Your task to perform on an android device: turn off notifications in google photos Image 0: 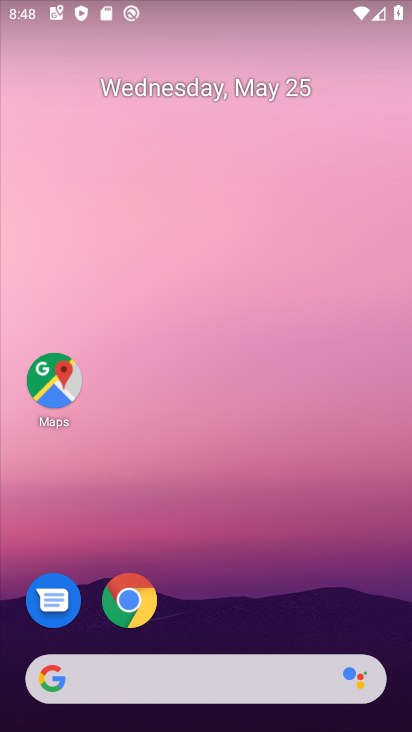
Step 0: drag from (282, 598) to (192, 32)
Your task to perform on an android device: turn off notifications in google photos Image 1: 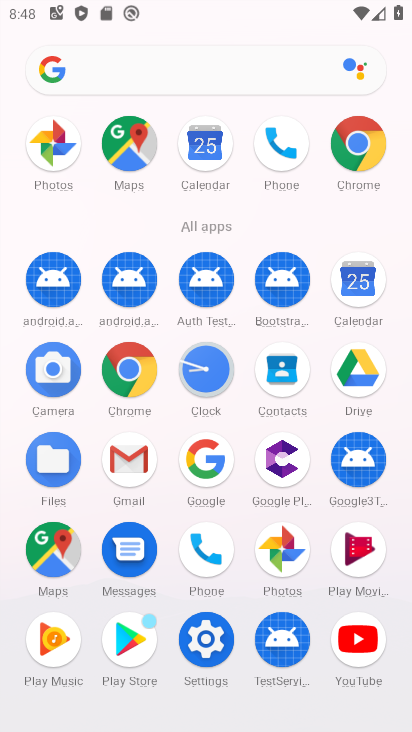
Step 1: drag from (6, 532) to (22, 262)
Your task to perform on an android device: turn off notifications in google photos Image 2: 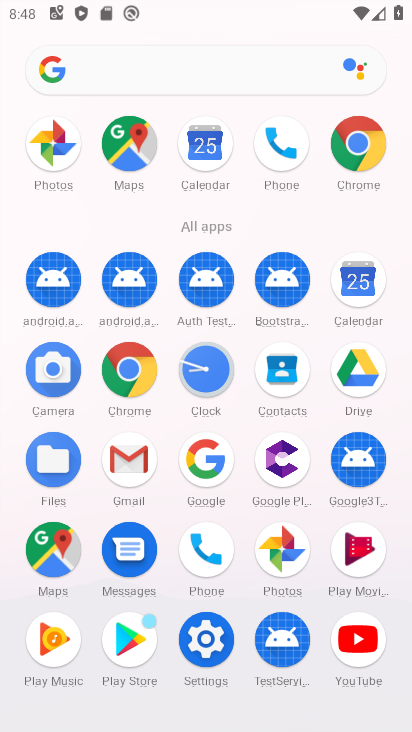
Step 2: click (282, 548)
Your task to perform on an android device: turn off notifications in google photos Image 3: 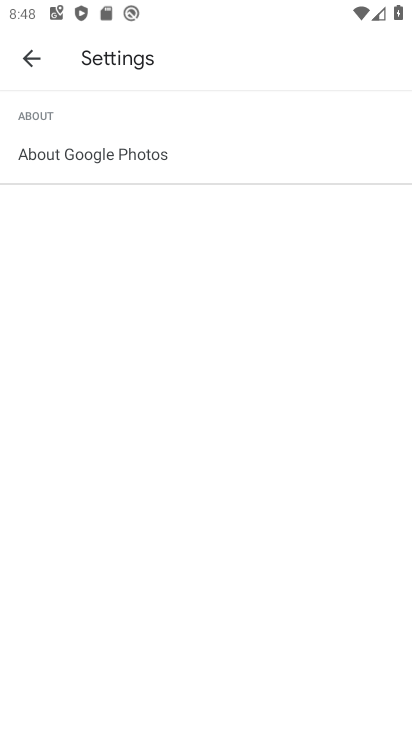
Step 3: click (20, 57)
Your task to perform on an android device: turn off notifications in google photos Image 4: 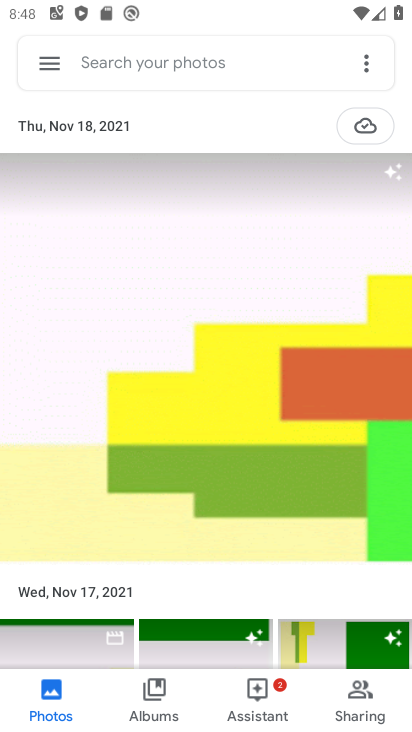
Step 4: click (365, 61)
Your task to perform on an android device: turn off notifications in google photos Image 5: 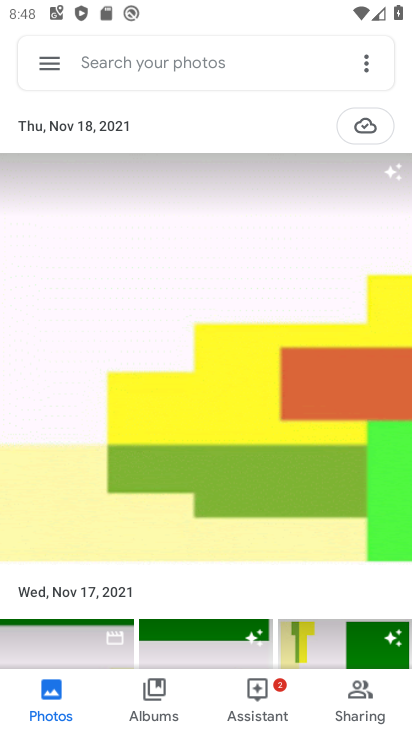
Step 5: click (365, 61)
Your task to perform on an android device: turn off notifications in google photos Image 6: 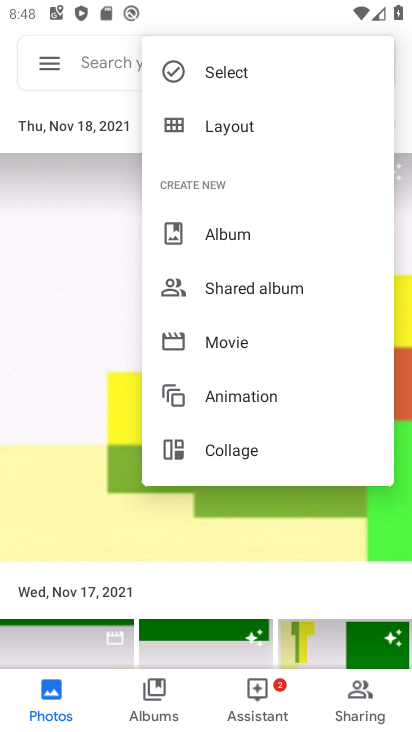
Step 6: click (40, 55)
Your task to perform on an android device: turn off notifications in google photos Image 7: 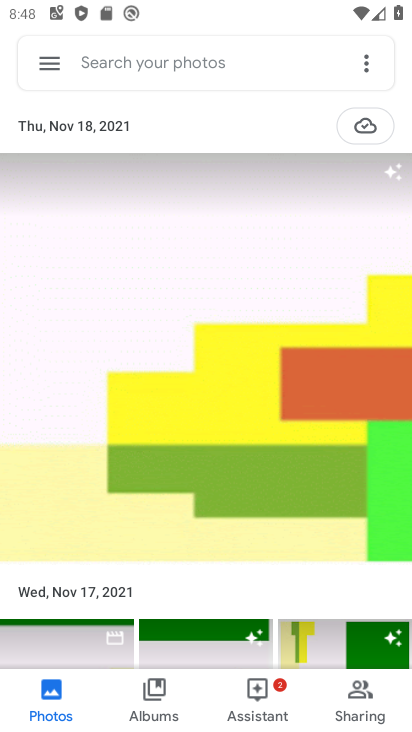
Step 7: click (57, 68)
Your task to perform on an android device: turn off notifications in google photos Image 8: 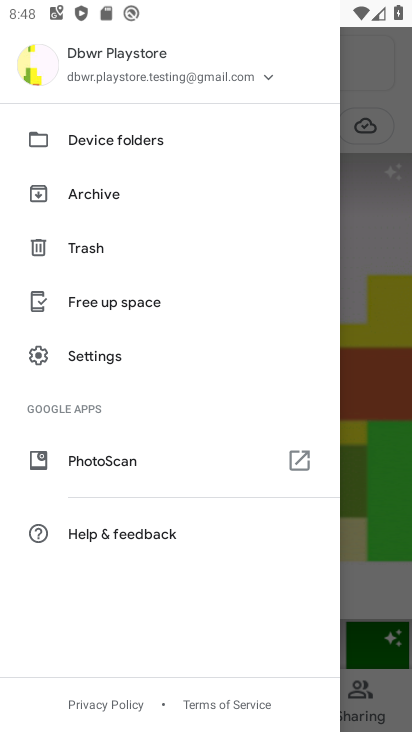
Step 8: click (81, 350)
Your task to perform on an android device: turn off notifications in google photos Image 9: 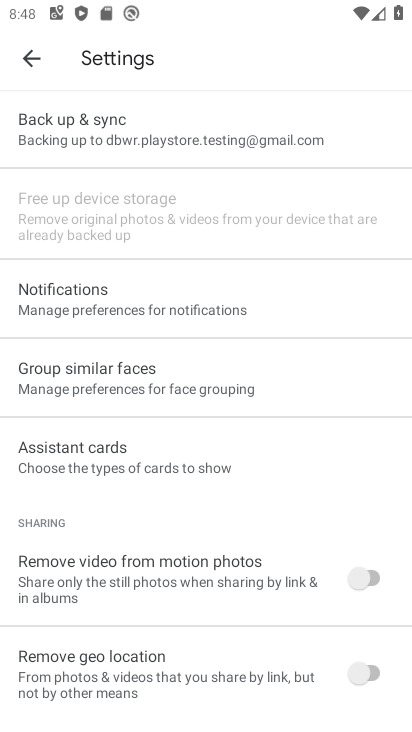
Step 9: click (103, 311)
Your task to perform on an android device: turn off notifications in google photos Image 10: 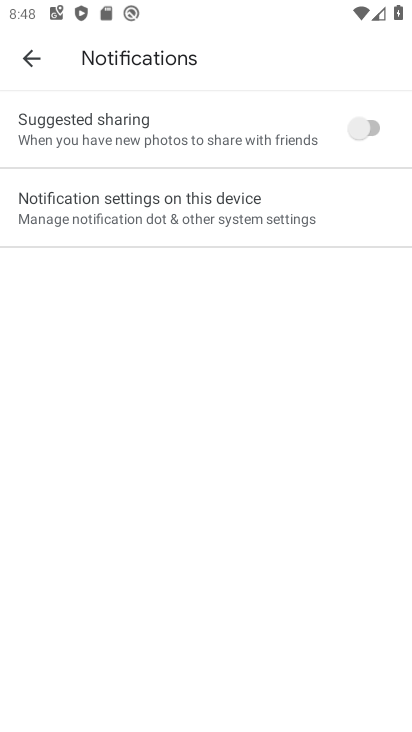
Step 10: click (175, 233)
Your task to perform on an android device: turn off notifications in google photos Image 11: 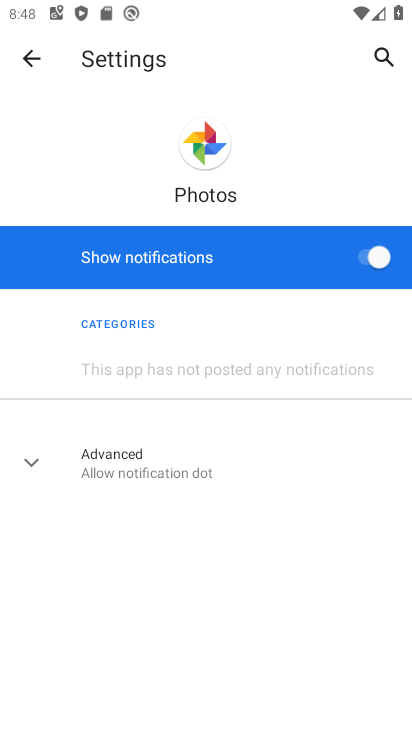
Step 11: click (374, 247)
Your task to perform on an android device: turn off notifications in google photos Image 12: 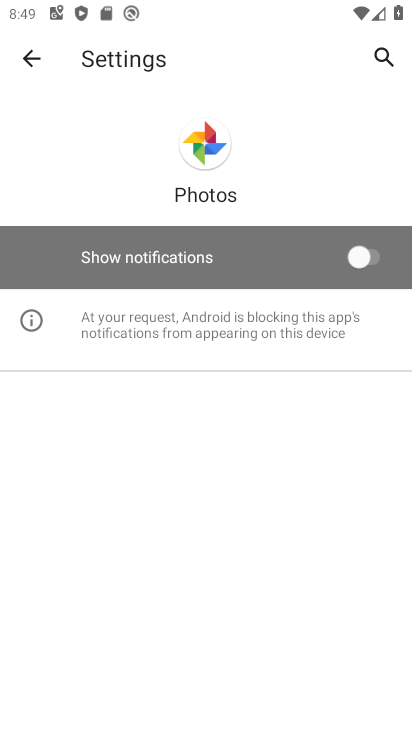
Step 12: task complete